Your task to perform on an android device: remove spam from my inbox in the gmail app Image 0: 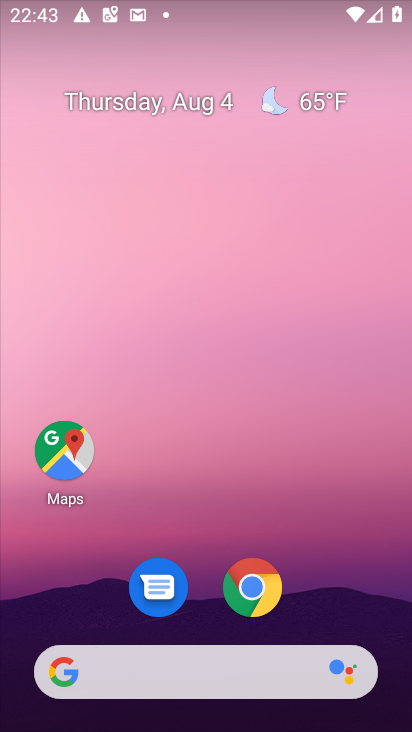
Step 0: drag from (214, 473) to (239, 150)
Your task to perform on an android device: remove spam from my inbox in the gmail app Image 1: 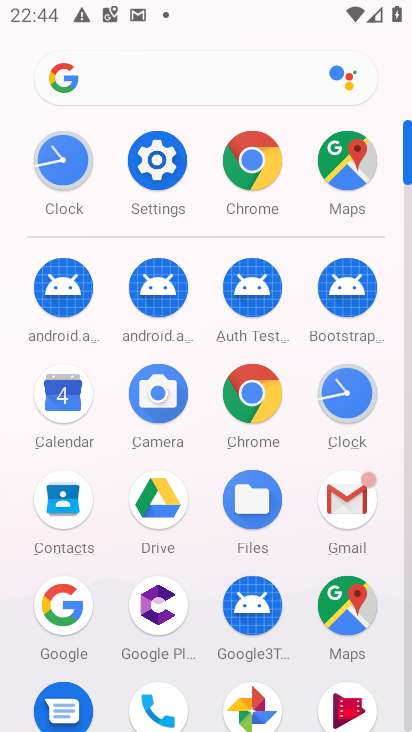
Step 1: click (339, 511)
Your task to perform on an android device: remove spam from my inbox in the gmail app Image 2: 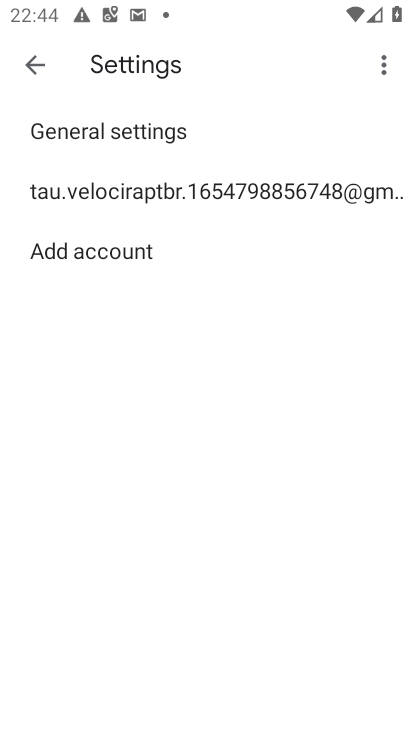
Step 2: click (31, 52)
Your task to perform on an android device: remove spam from my inbox in the gmail app Image 3: 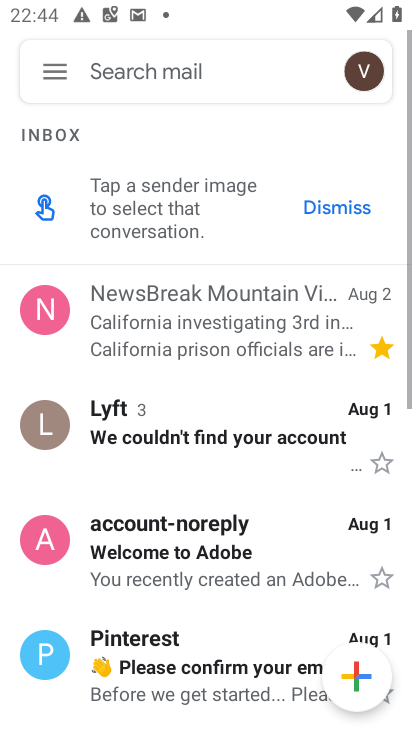
Step 3: click (42, 56)
Your task to perform on an android device: remove spam from my inbox in the gmail app Image 4: 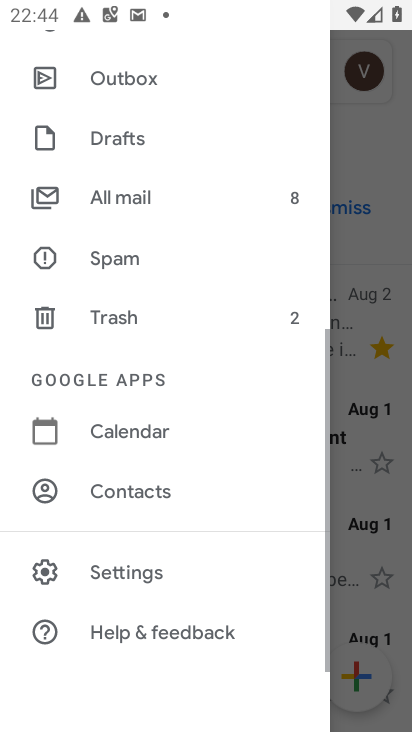
Step 4: click (86, 247)
Your task to perform on an android device: remove spam from my inbox in the gmail app Image 5: 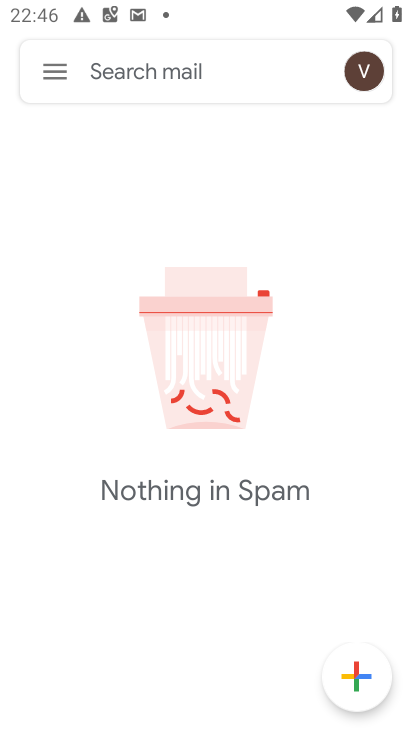
Step 5: task complete